Your task to perform on an android device: empty trash in the gmail app Image 0: 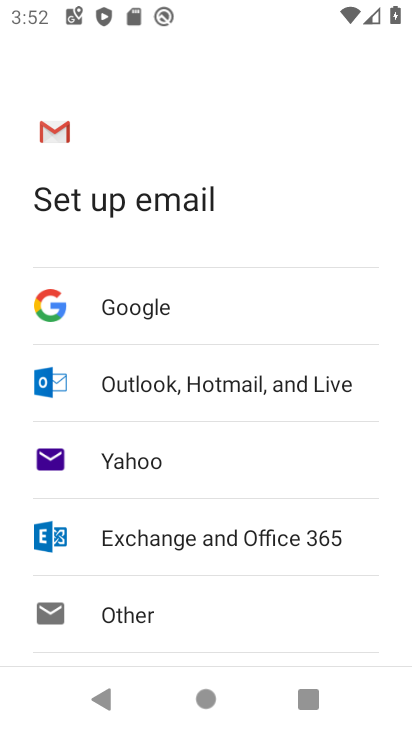
Step 0: press home button
Your task to perform on an android device: empty trash in the gmail app Image 1: 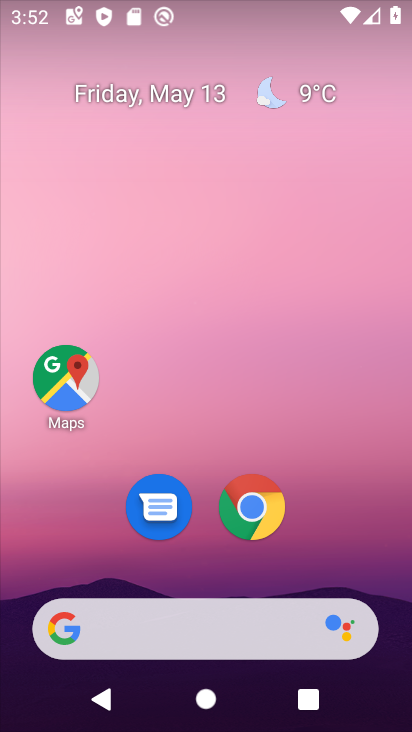
Step 1: drag from (386, 451) to (409, 102)
Your task to perform on an android device: empty trash in the gmail app Image 2: 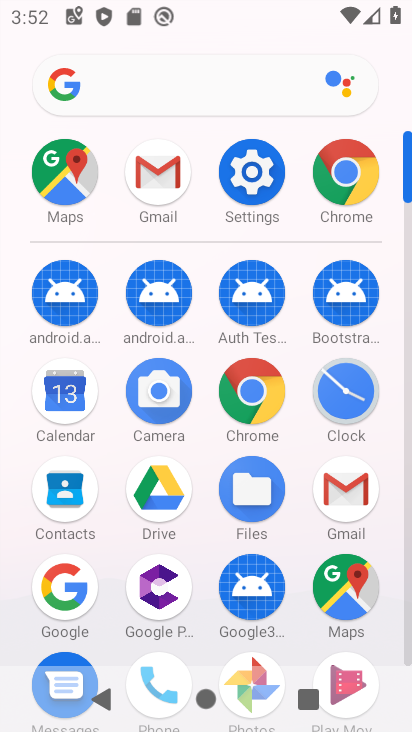
Step 2: click (339, 492)
Your task to perform on an android device: empty trash in the gmail app Image 3: 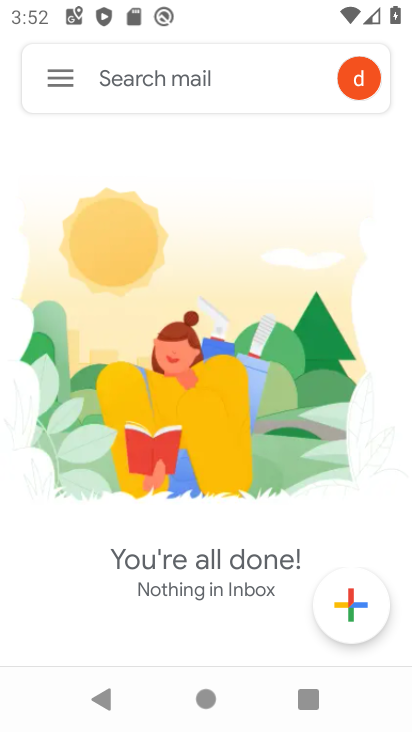
Step 3: click (65, 97)
Your task to perform on an android device: empty trash in the gmail app Image 4: 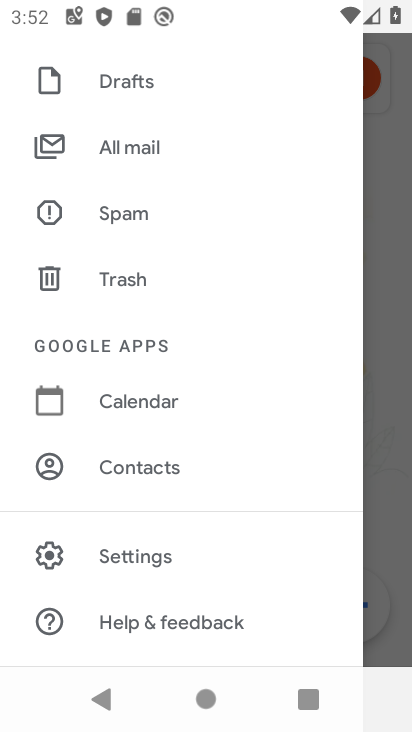
Step 4: click (117, 298)
Your task to perform on an android device: empty trash in the gmail app Image 5: 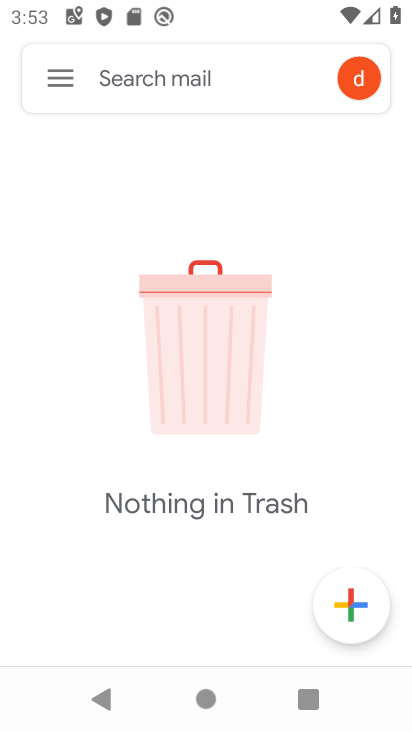
Step 5: task complete